Your task to perform on an android device: Open ESPN.com Image 0: 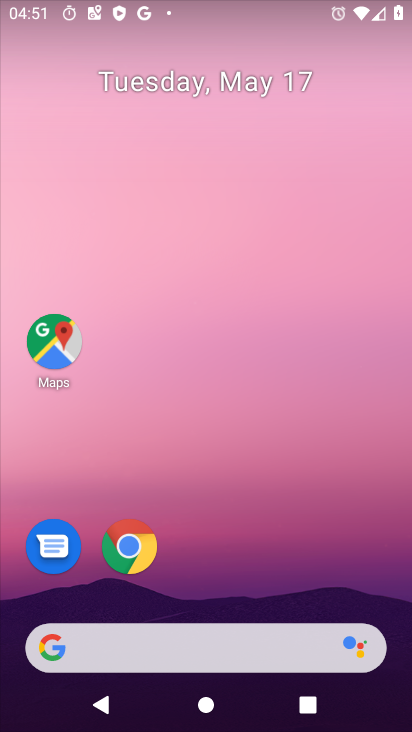
Step 0: click (121, 540)
Your task to perform on an android device: Open ESPN.com Image 1: 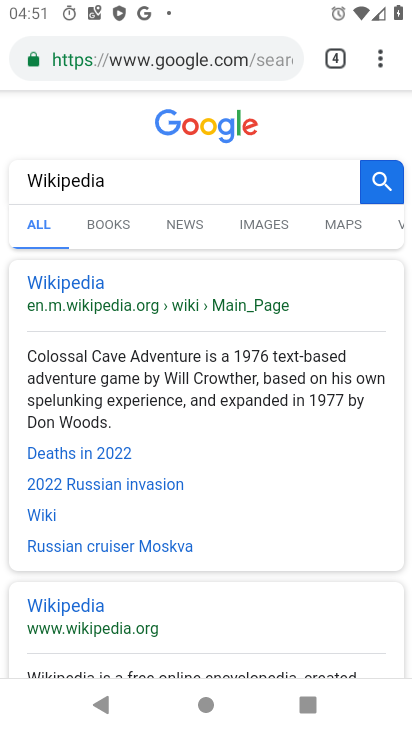
Step 1: click (292, 61)
Your task to perform on an android device: Open ESPN.com Image 2: 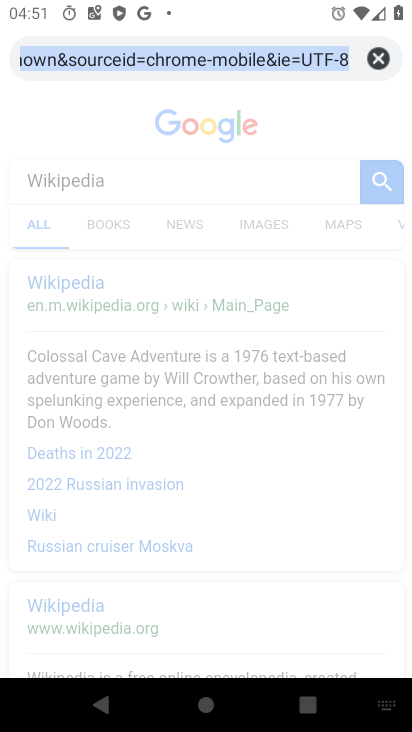
Step 2: click (383, 54)
Your task to perform on an android device: Open ESPN.com Image 3: 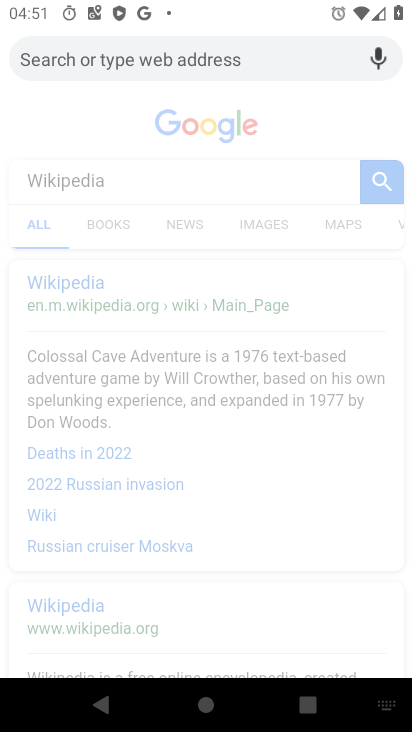
Step 3: type "ESPN.com"
Your task to perform on an android device: Open ESPN.com Image 4: 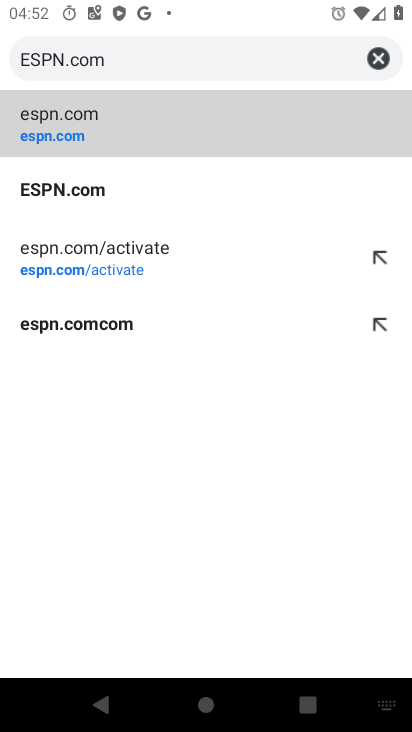
Step 4: click (66, 188)
Your task to perform on an android device: Open ESPN.com Image 5: 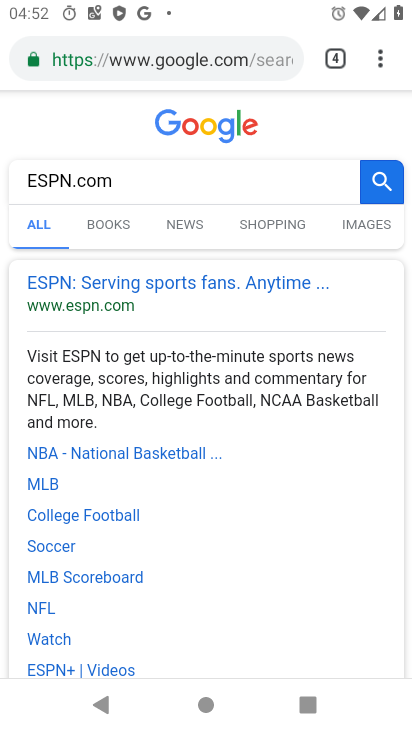
Step 5: task complete